Your task to perform on an android device: remove spam from my inbox in the gmail app Image 0: 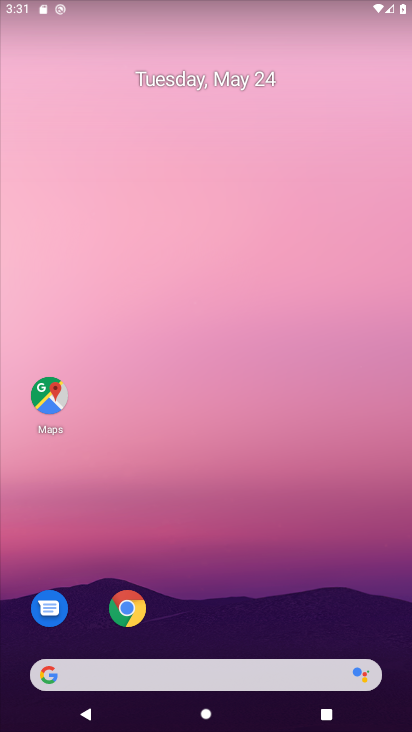
Step 0: drag from (197, 637) to (289, 211)
Your task to perform on an android device: remove spam from my inbox in the gmail app Image 1: 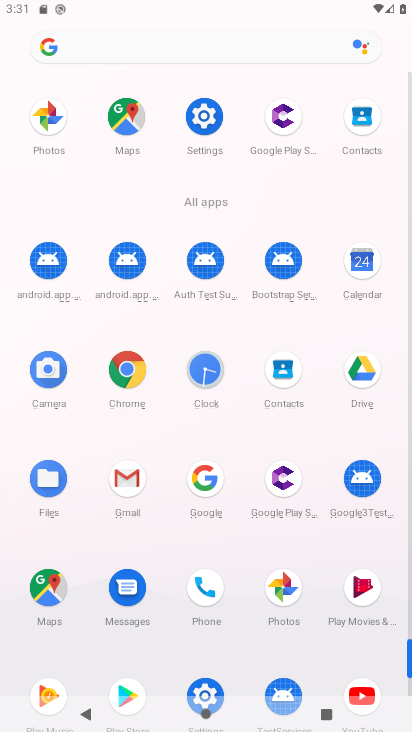
Step 1: click (107, 487)
Your task to perform on an android device: remove spam from my inbox in the gmail app Image 2: 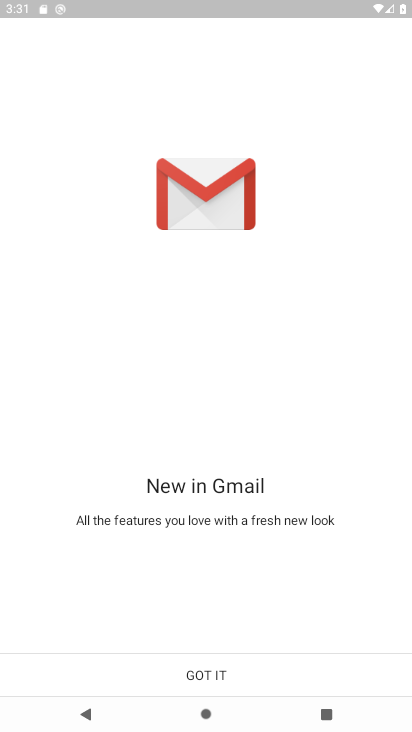
Step 2: click (211, 675)
Your task to perform on an android device: remove spam from my inbox in the gmail app Image 3: 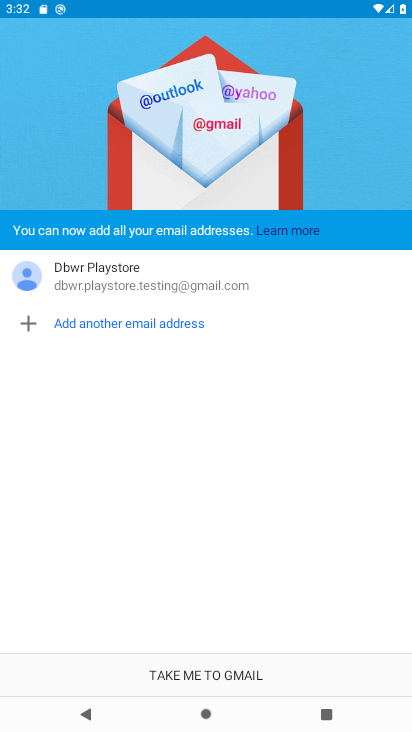
Step 3: click (210, 672)
Your task to perform on an android device: remove spam from my inbox in the gmail app Image 4: 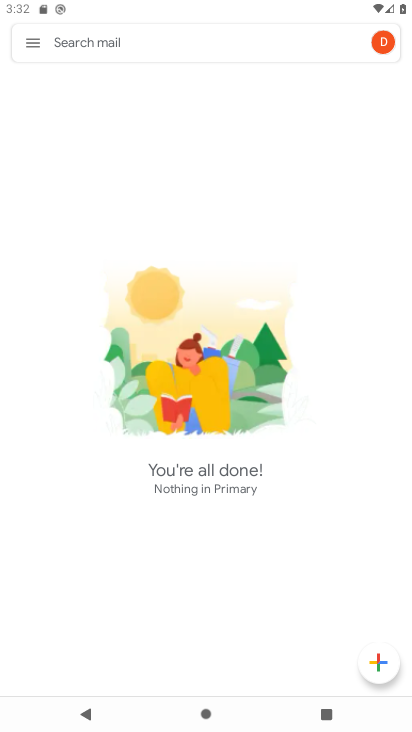
Step 4: click (29, 39)
Your task to perform on an android device: remove spam from my inbox in the gmail app Image 5: 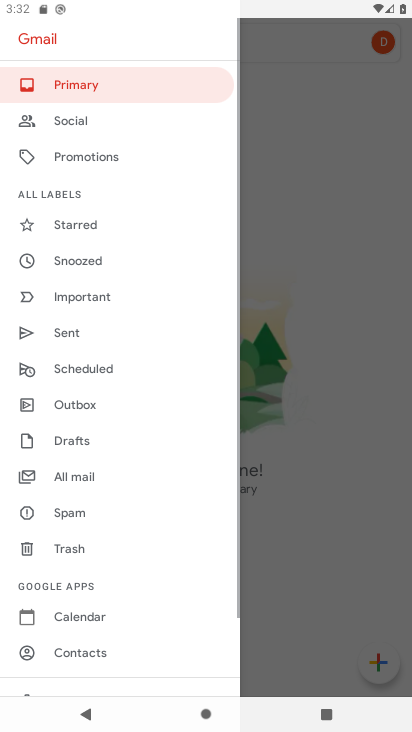
Step 5: drag from (96, 553) to (168, 328)
Your task to perform on an android device: remove spam from my inbox in the gmail app Image 6: 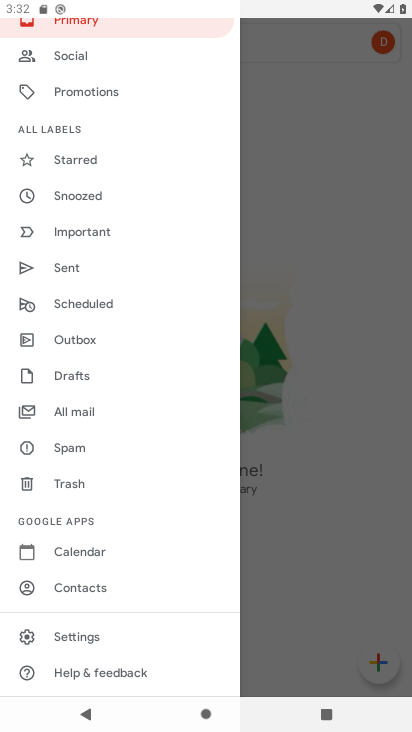
Step 6: click (109, 454)
Your task to perform on an android device: remove spam from my inbox in the gmail app Image 7: 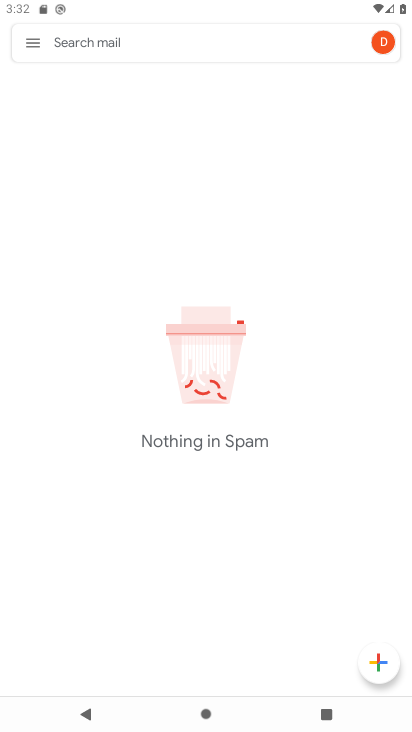
Step 7: task complete